Your task to perform on an android device: set the stopwatch Image 0: 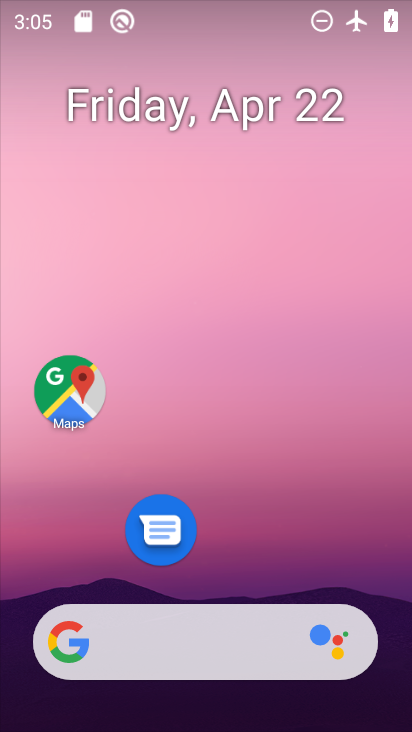
Step 0: drag from (263, 562) to (378, 55)
Your task to perform on an android device: set the stopwatch Image 1: 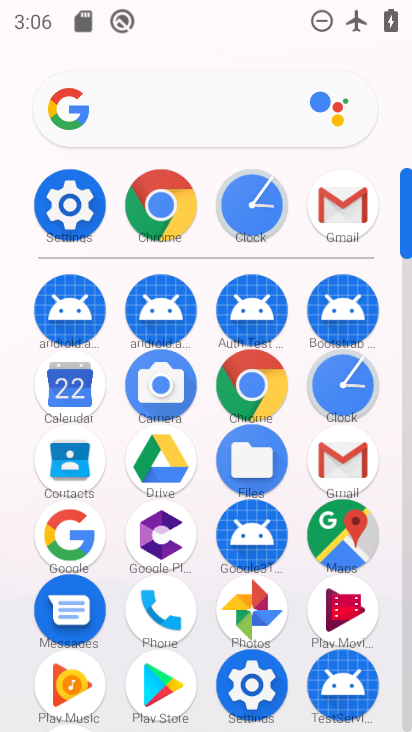
Step 1: click (344, 383)
Your task to perform on an android device: set the stopwatch Image 2: 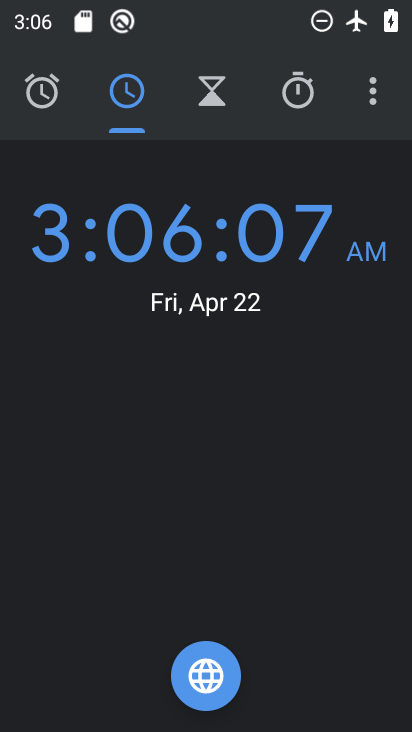
Step 2: click (295, 102)
Your task to perform on an android device: set the stopwatch Image 3: 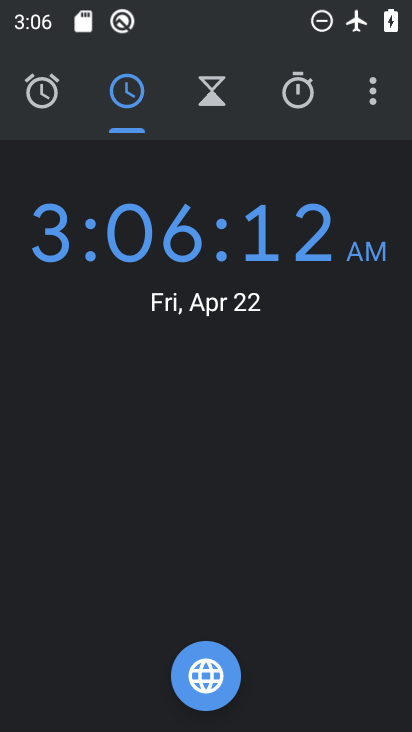
Step 3: click (287, 86)
Your task to perform on an android device: set the stopwatch Image 4: 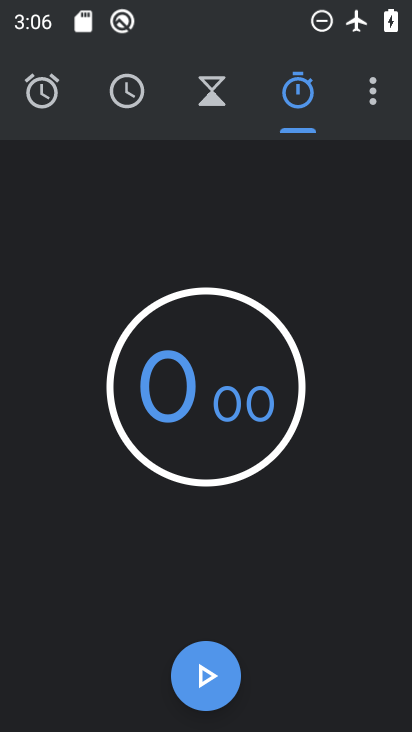
Step 4: task complete